Your task to perform on an android device: find photos in the google photos app Image 0: 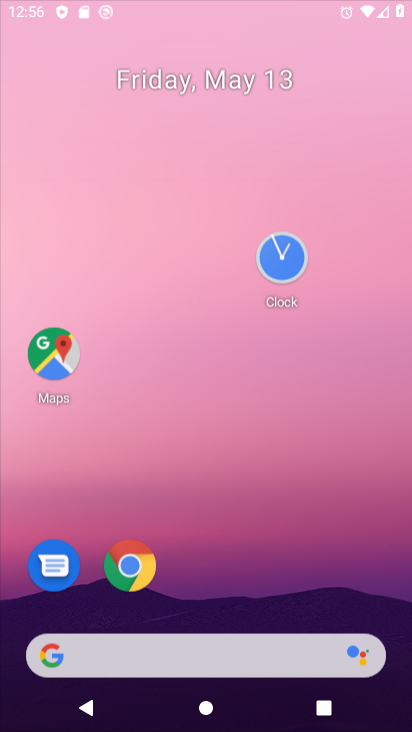
Step 0: drag from (240, 600) to (266, 22)
Your task to perform on an android device: find photos in the google photos app Image 1: 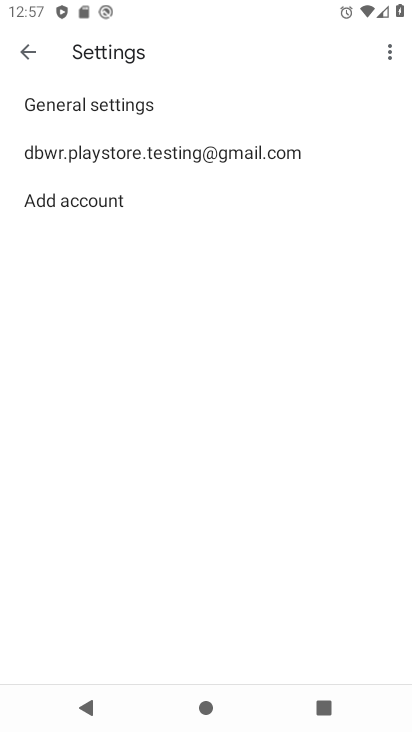
Step 1: press home button
Your task to perform on an android device: find photos in the google photos app Image 2: 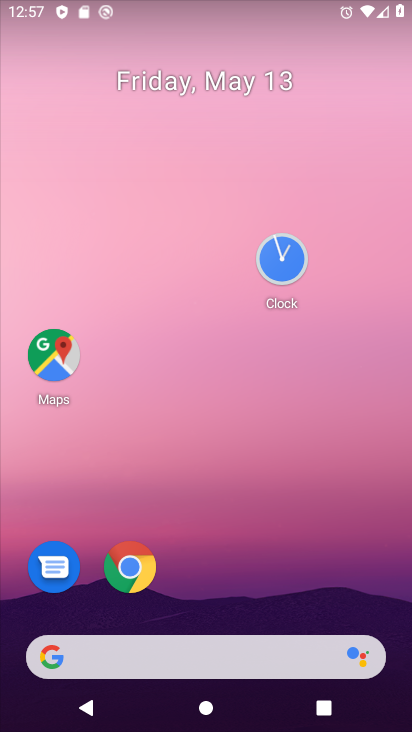
Step 2: drag from (257, 590) to (182, 89)
Your task to perform on an android device: find photos in the google photos app Image 3: 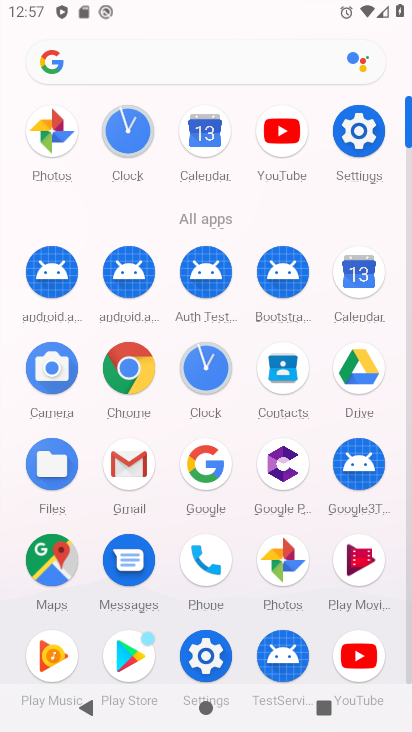
Step 3: click (257, 572)
Your task to perform on an android device: find photos in the google photos app Image 4: 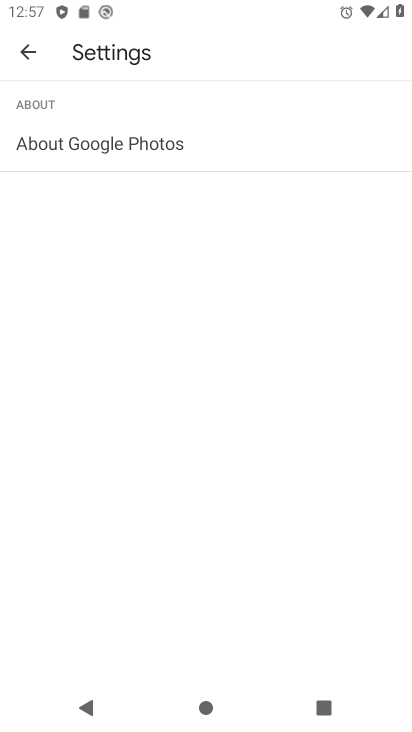
Step 4: click (33, 42)
Your task to perform on an android device: find photos in the google photos app Image 5: 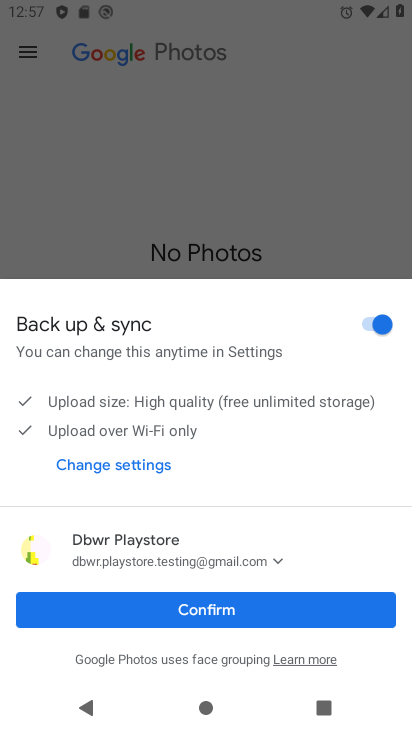
Step 5: click (168, 596)
Your task to perform on an android device: find photos in the google photos app Image 6: 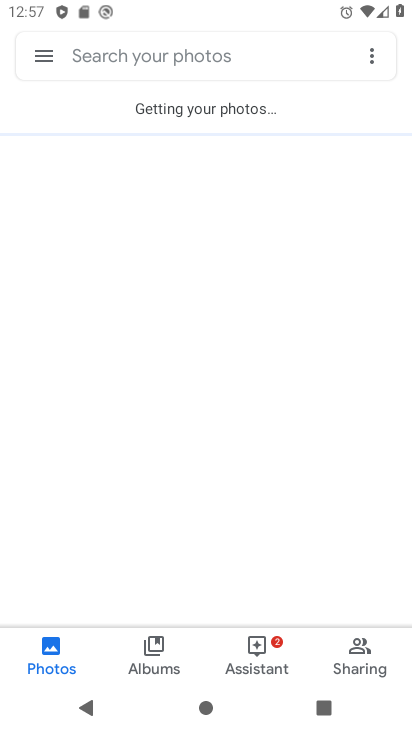
Step 6: task complete